Your task to perform on an android device: open a bookmark in the chrome app Image 0: 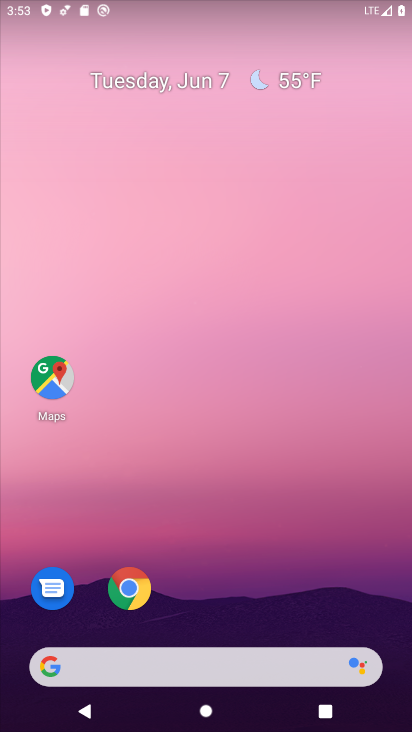
Step 0: click (146, 594)
Your task to perform on an android device: open a bookmark in the chrome app Image 1: 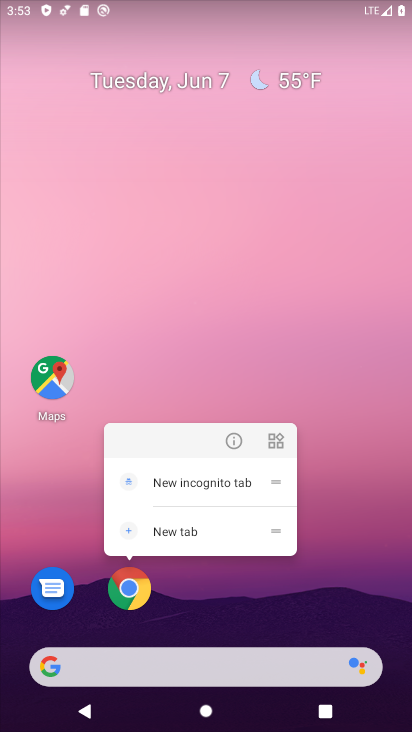
Step 1: click (142, 595)
Your task to perform on an android device: open a bookmark in the chrome app Image 2: 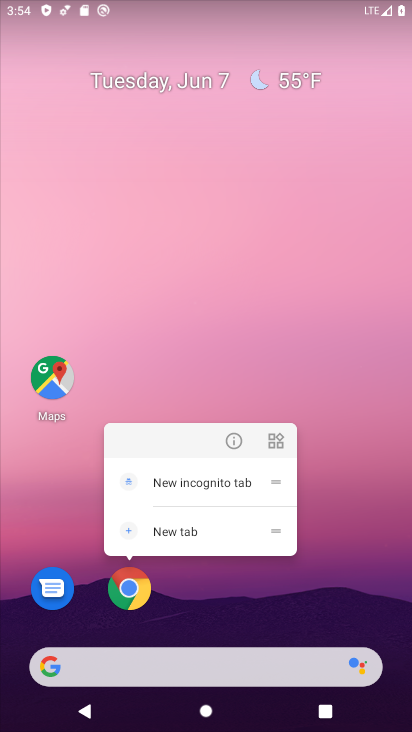
Step 2: click (133, 595)
Your task to perform on an android device: open a bookmark in the chrome app Image 3: 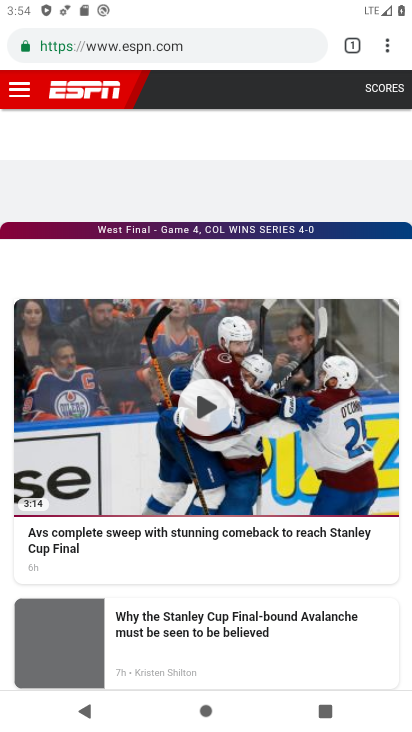
Step 3: drag from (390, 58) to (298, 171)
Your task to perform on an android device: open a bookmark in the chrome app Image 4: 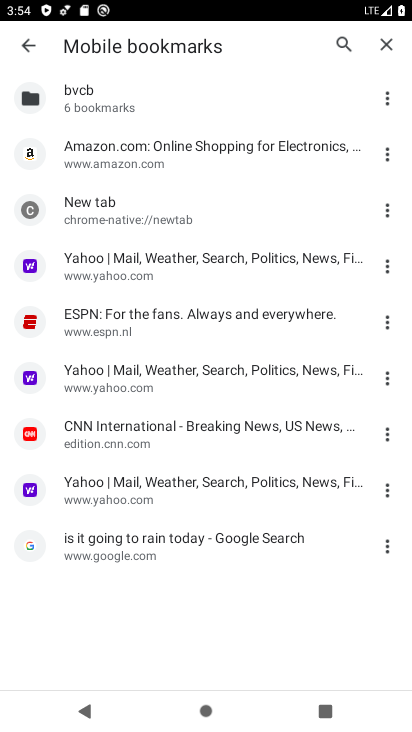
Step 4: click (177, 537)
Your task to perform on an android device: open a bookmark in the chrome app Image 5: 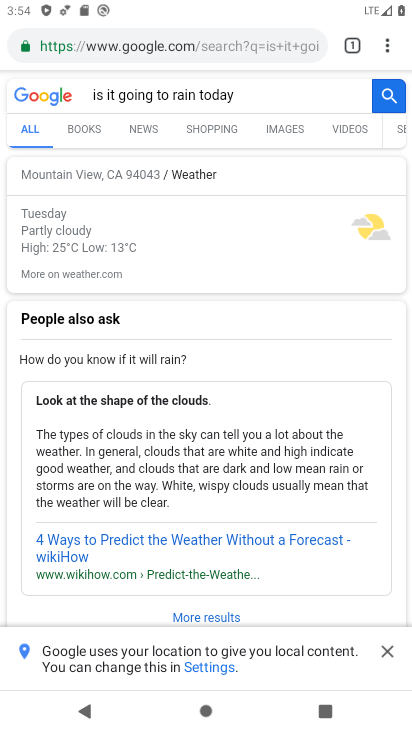
Step 5: task complete